Your task to perform on an android device: Do I have any events today? Image 0: 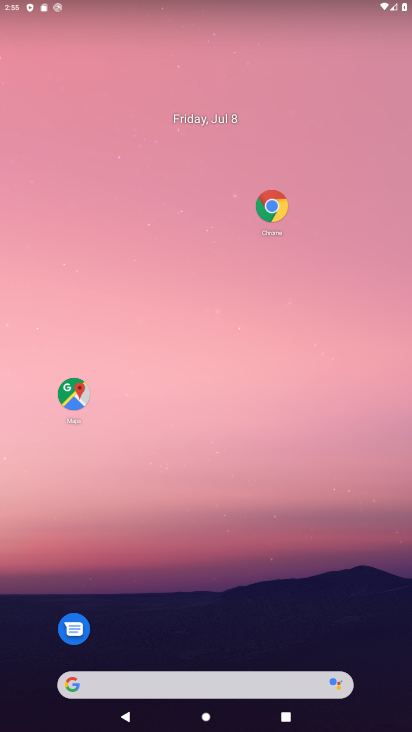
Step 0: drag from (206, 586) to (297, 103)
Your task to perform on an android device: Do I have any events today? Image 1: 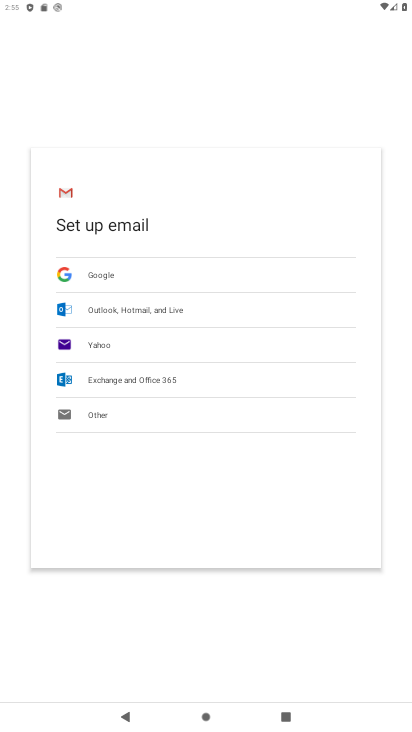
Step 1: press home button
Your task to perform on an android device: Do I have any events today? Image 2: 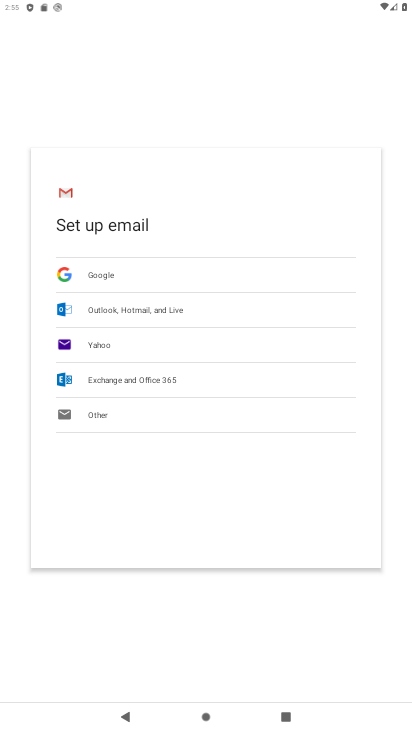
Step 2: press home button
Your task to perform on an android device: Do I have any events today? Image 3: 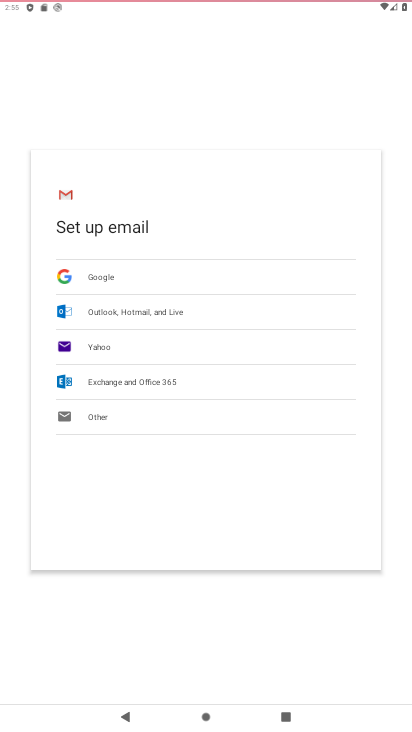
Step 3: click (286, 53)
Your task to perform on an android device: Do I have any events today? Image 4: 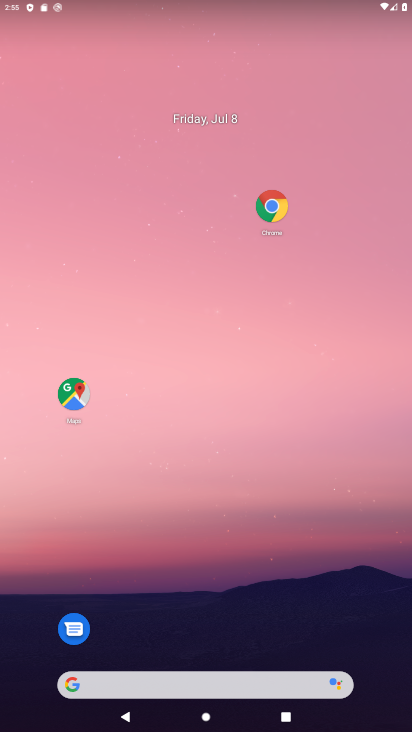
Step 4: drag from (211, 481) to (248, 188)
Your task to perform on an android device: Do I have any events today? Image 5: 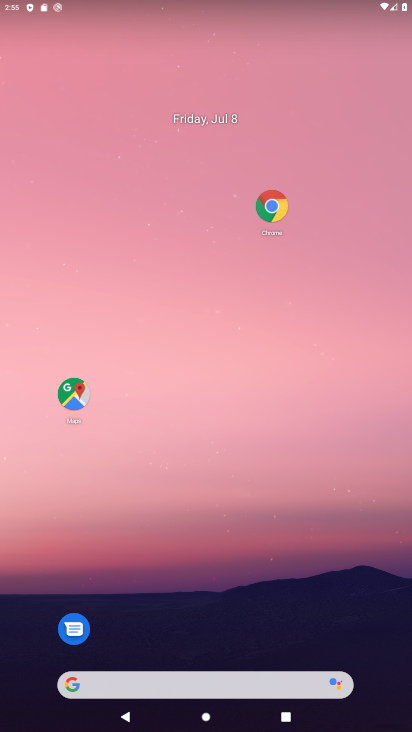
Step 5: drag from (205, 666) to (362, 91)
Your task to perform on an android device: Do I have any events today? Image 6: 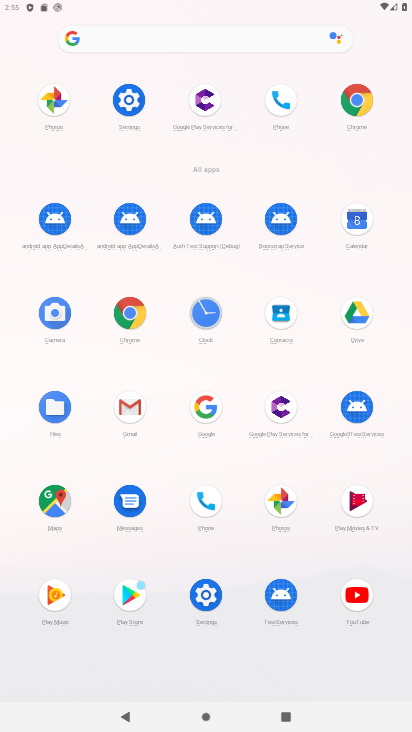
Step 6: click (358, 224)
Your task to perform on an android device: Do I have any events today? Image 7: 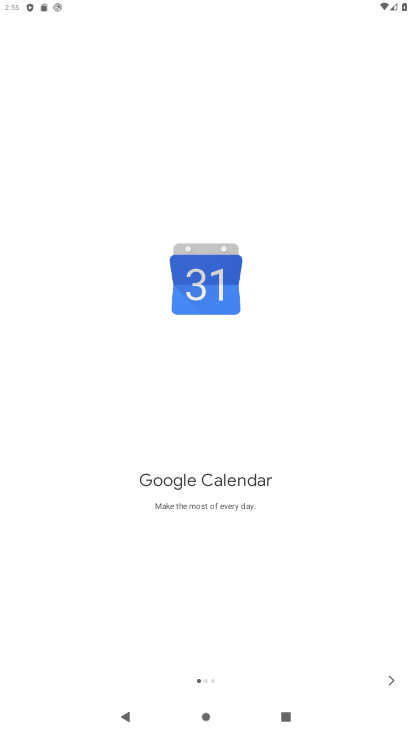
Step 7: click (385, 673)
Your task to perform on an android device: Do I have any events today? Image 8: 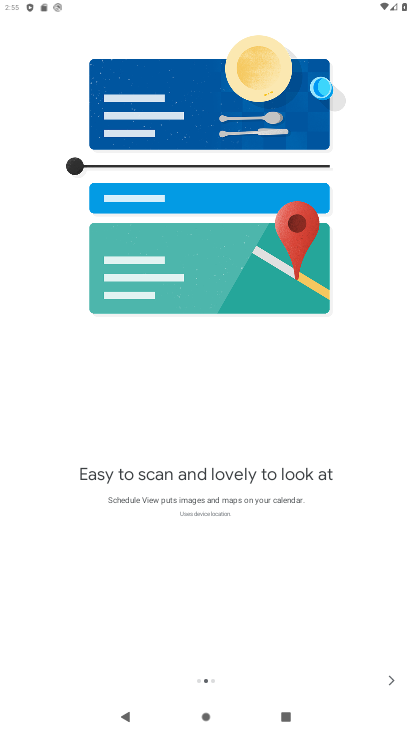
Step 8: click (386, 670)
Your task to perform on an android device: Do I have any events today? Image 9: 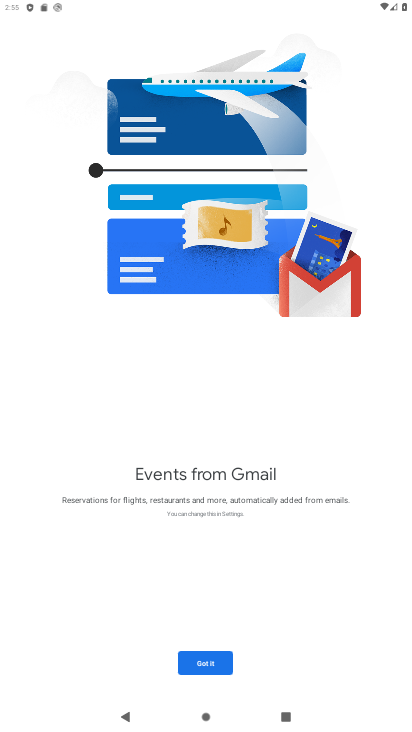
Step 9: click (189, 659)
Your task to perform on an android device: Do I have any events today? Image 10: 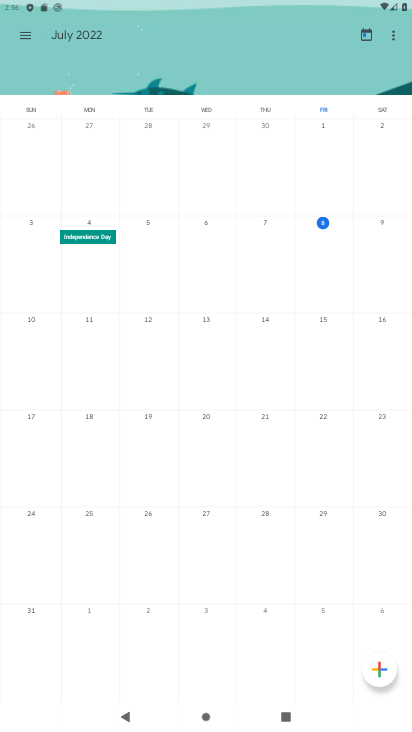
Step 10: click (322, 227)
Your task to perform on an android device: Do I have any events today? Image 11: 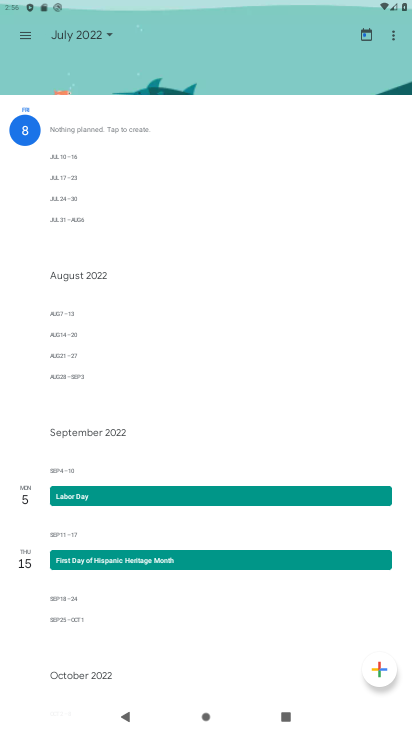
Step 11: task complete